Your task to perform on an android device: Go to Android settings Image 0: 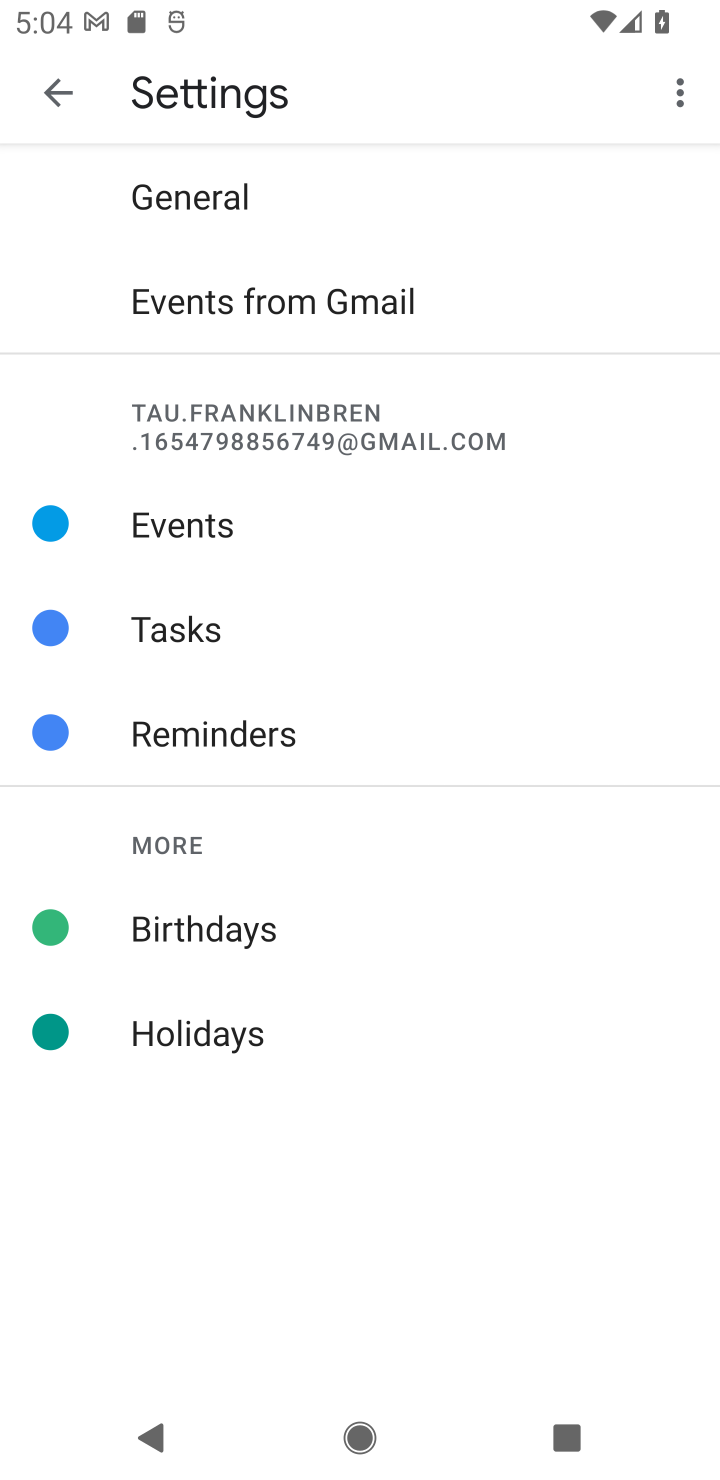
Step 0: press home button
Your task to perform on an android device: Go to Android settings Image 1: 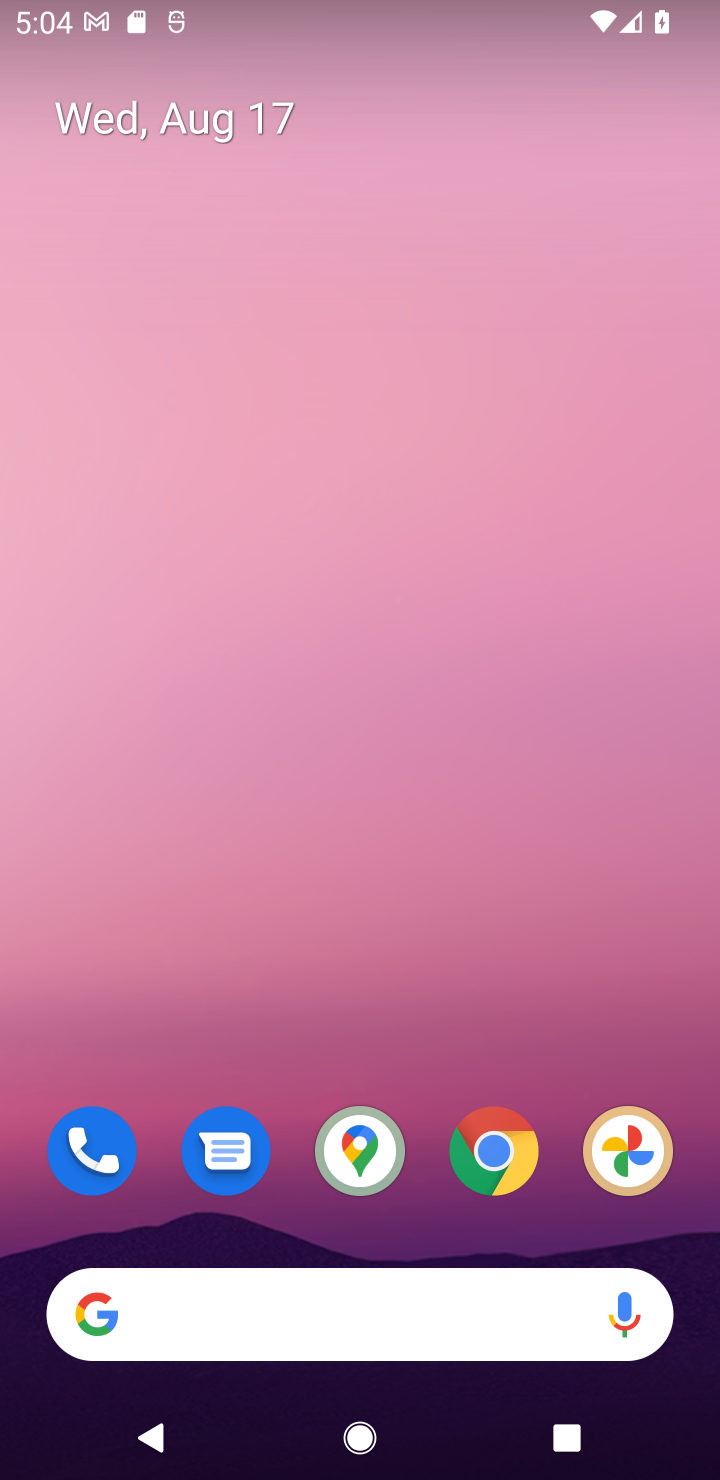
Step 1: drag from (579, 1230) to (501, 355)
Your task to perform on an android device: Go to Android settings Image 2: 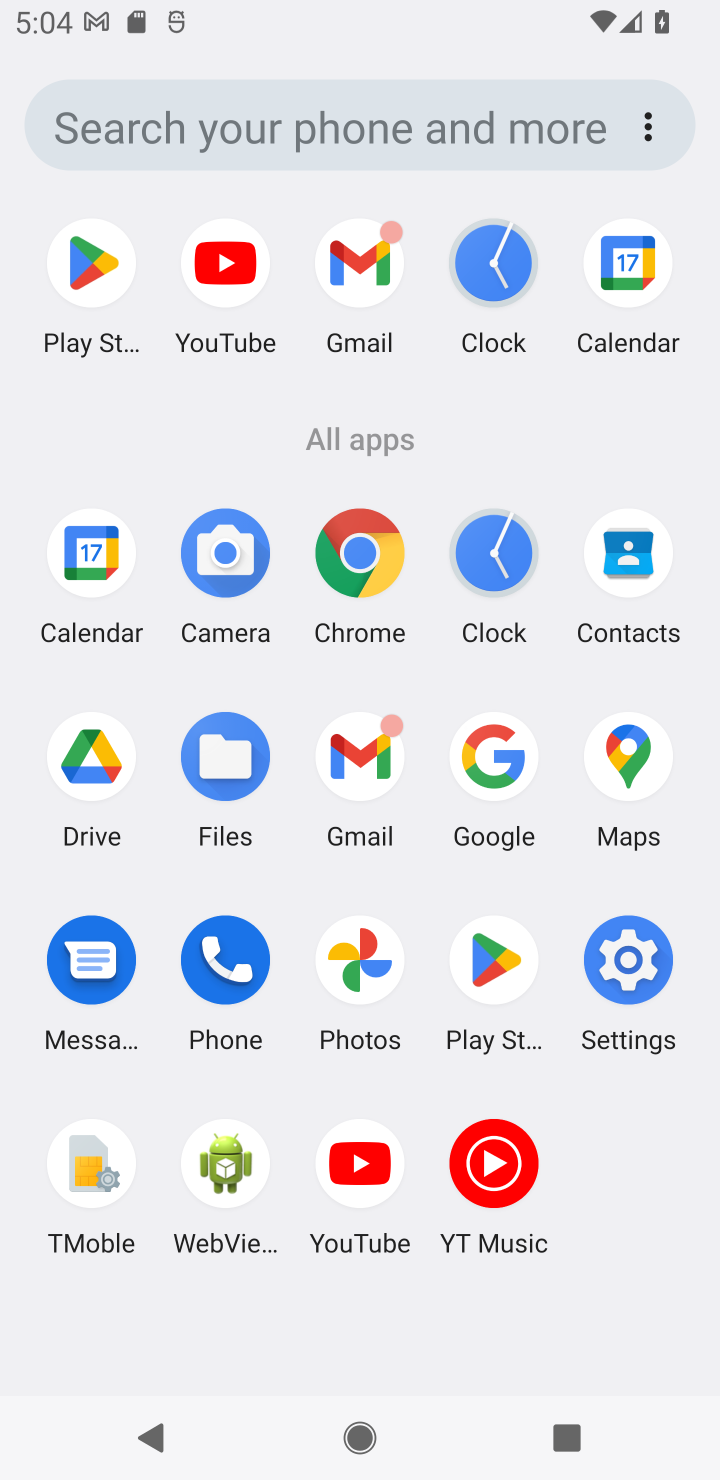
Step 2: click (633, 963)
Your task to perform on an android device: Go to Android settings Image 3: 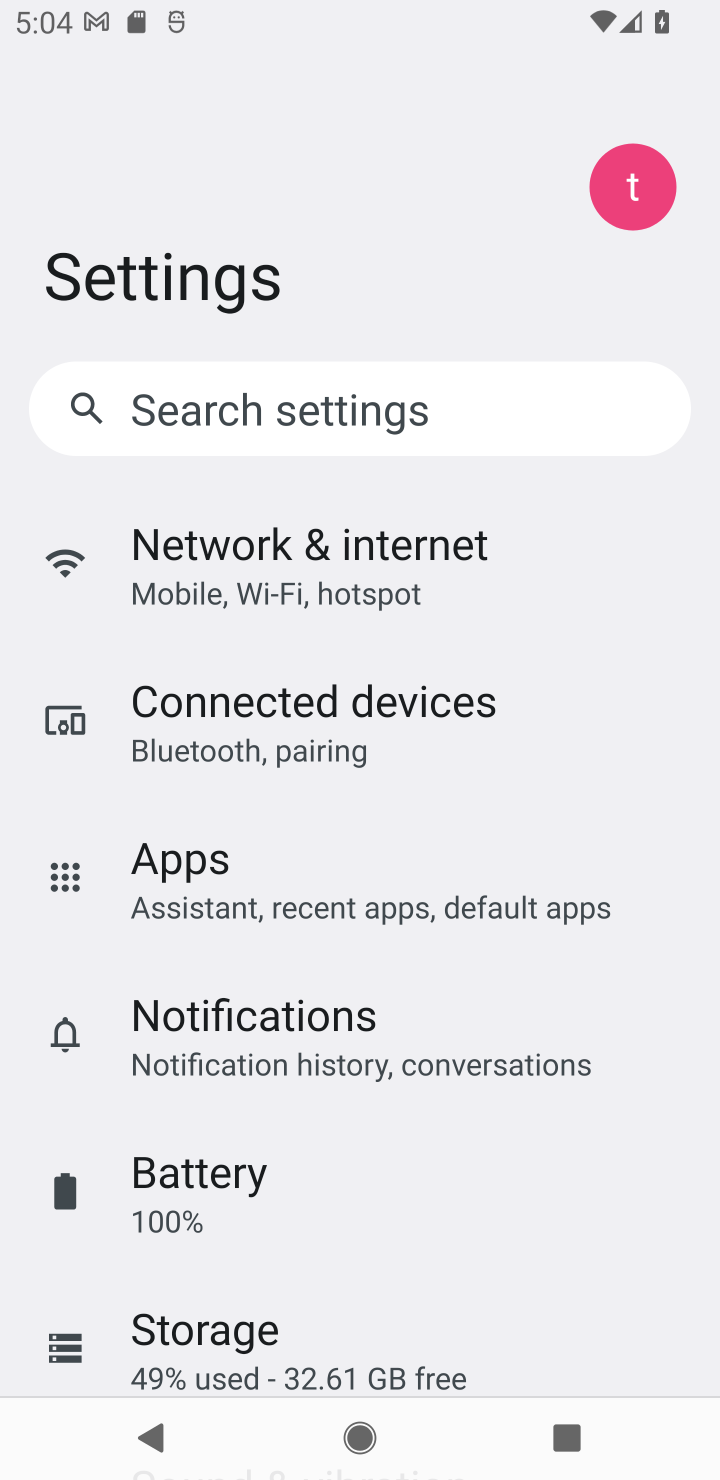
Step 3: drag from (511, 1295) to (529, 622)
Your task to perform on an android device: Go to Android settings Image 4: 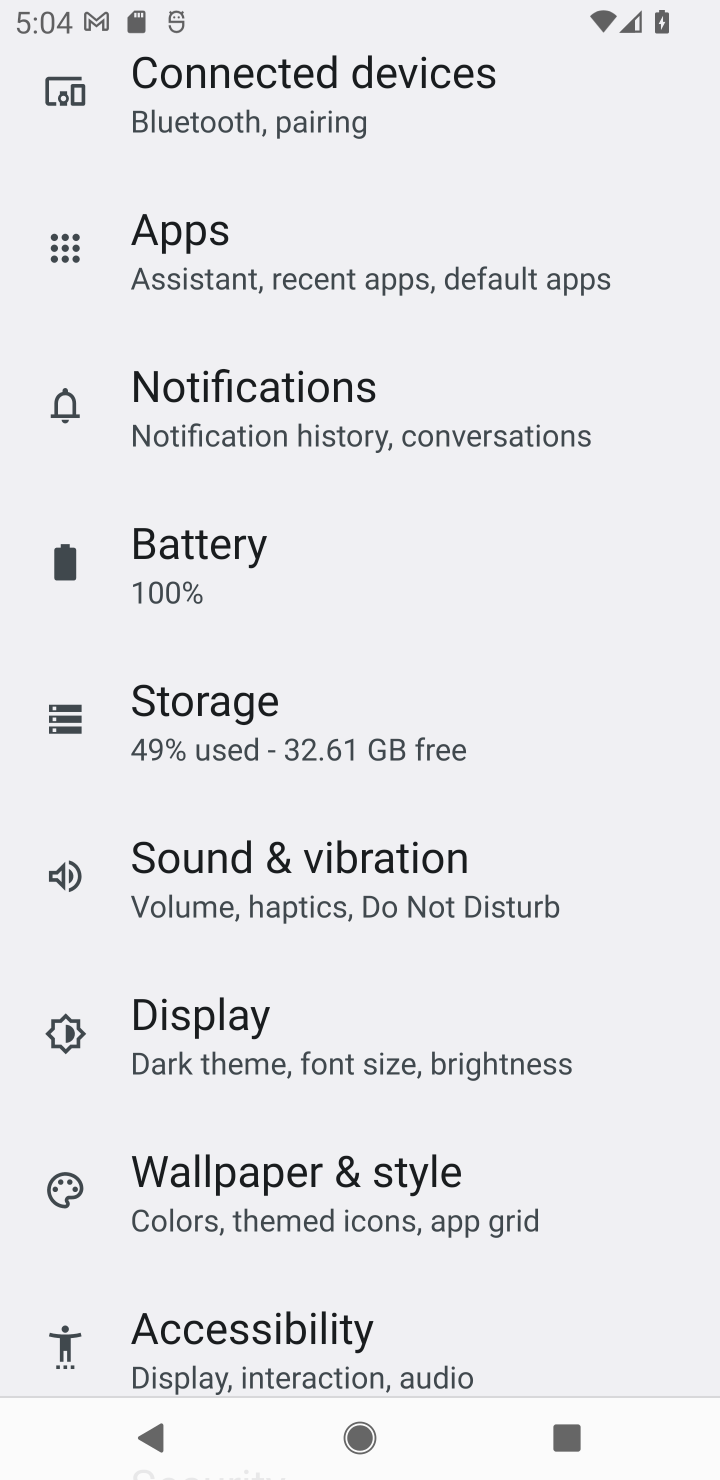
Step 4: drag from (562, 1245) to (527, 656)
Your task to perform on an android device: Go to Android settings Image 5: 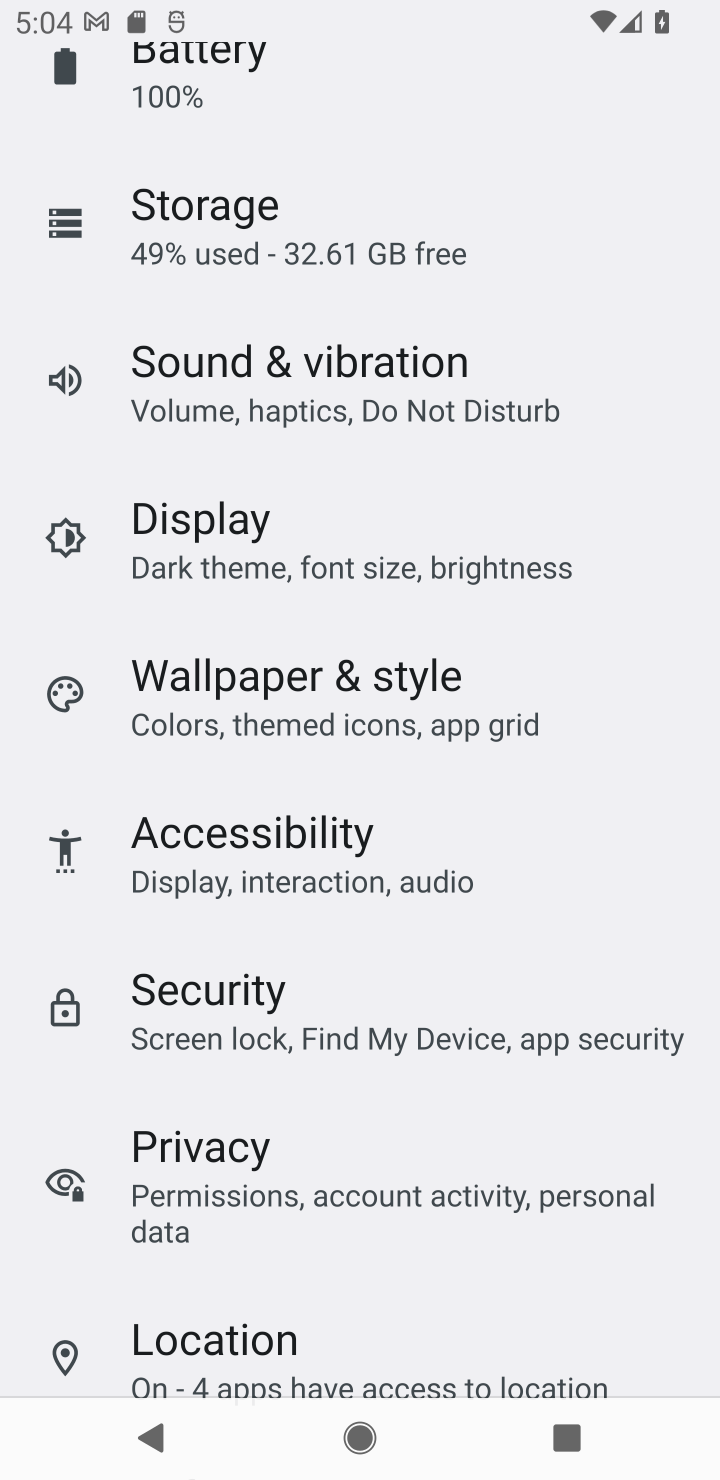
Step 5: drag from (545, 1280) to (526, 479)
Your task to perform on an android device: Go to Android settings Image 6: 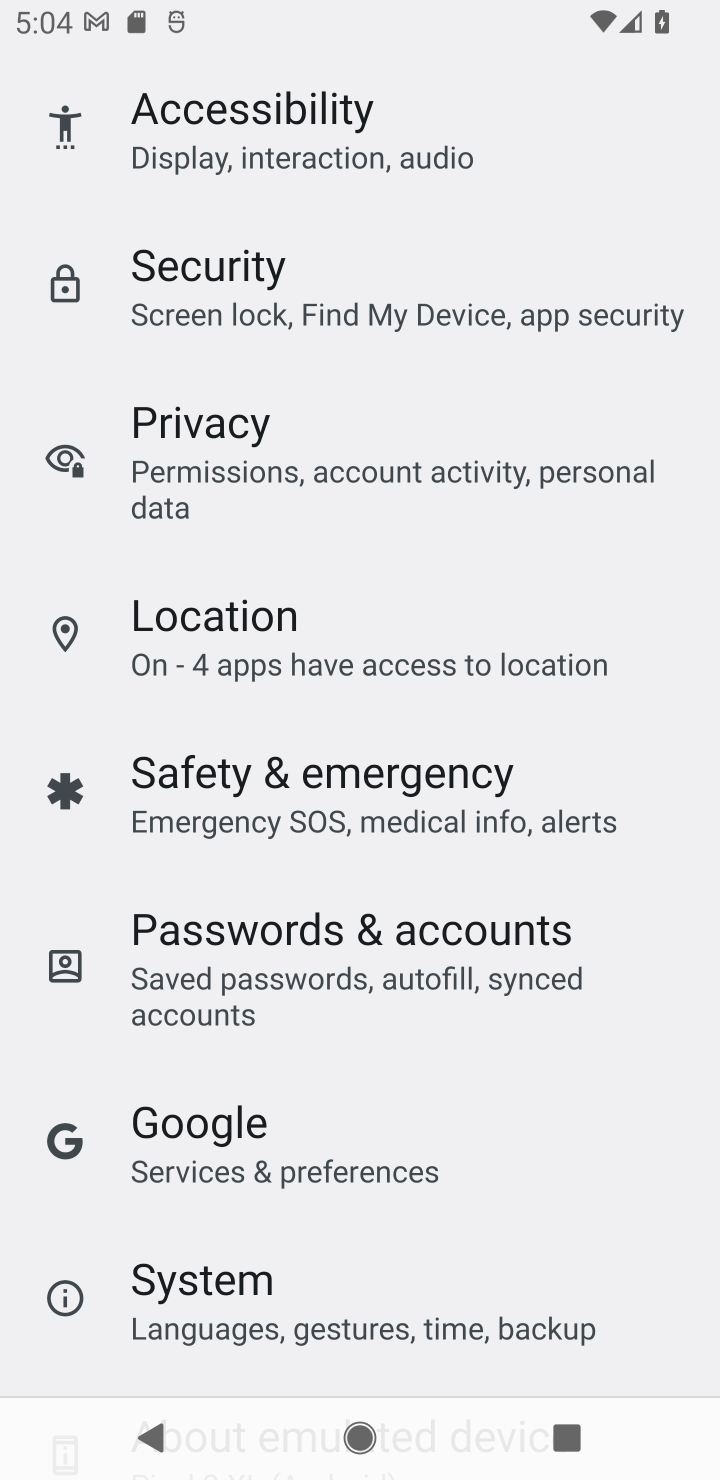
Step 6: drag from (516, 1142) to (480, 228)
Your task to perform on an android device: Go to Android settings Image 7: 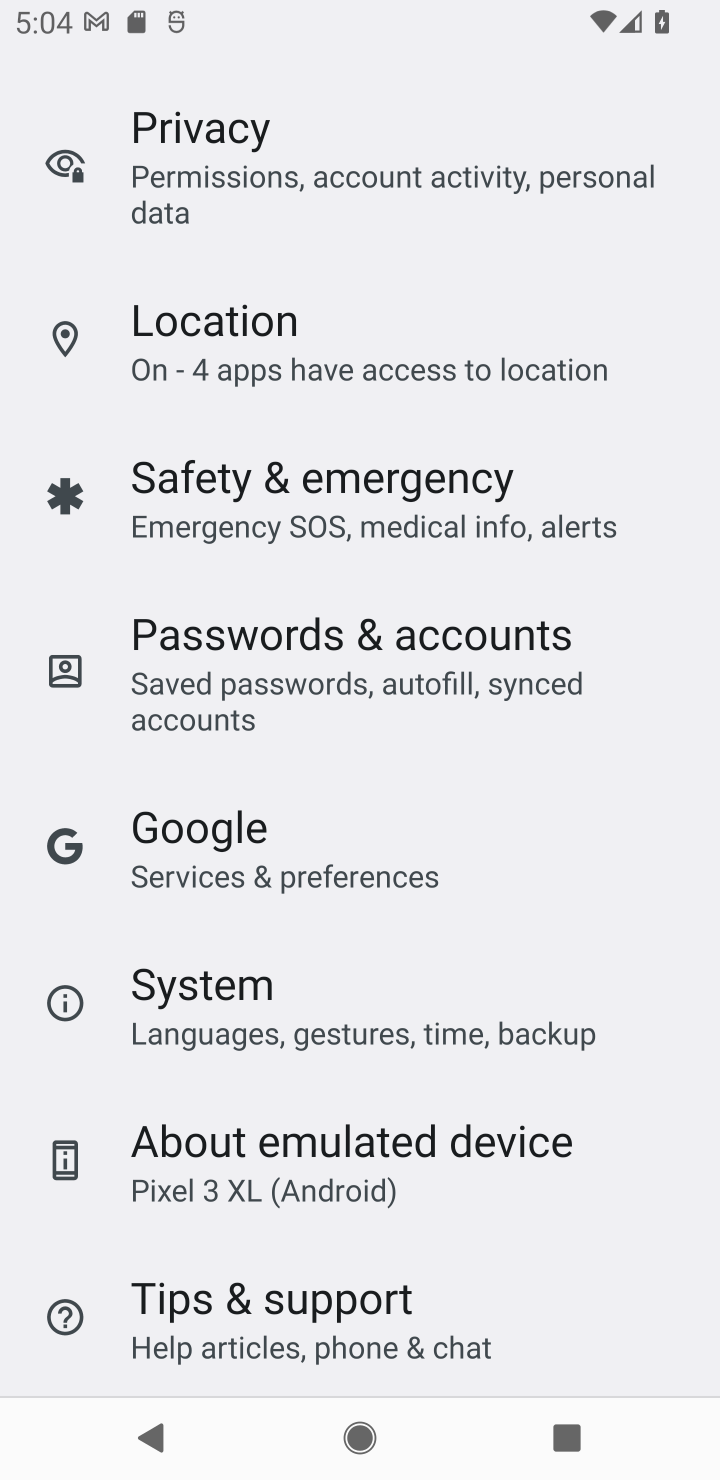
Step 7: click (232, 1166)
Your task to perform on an android device: Go to Android settings Image 8: 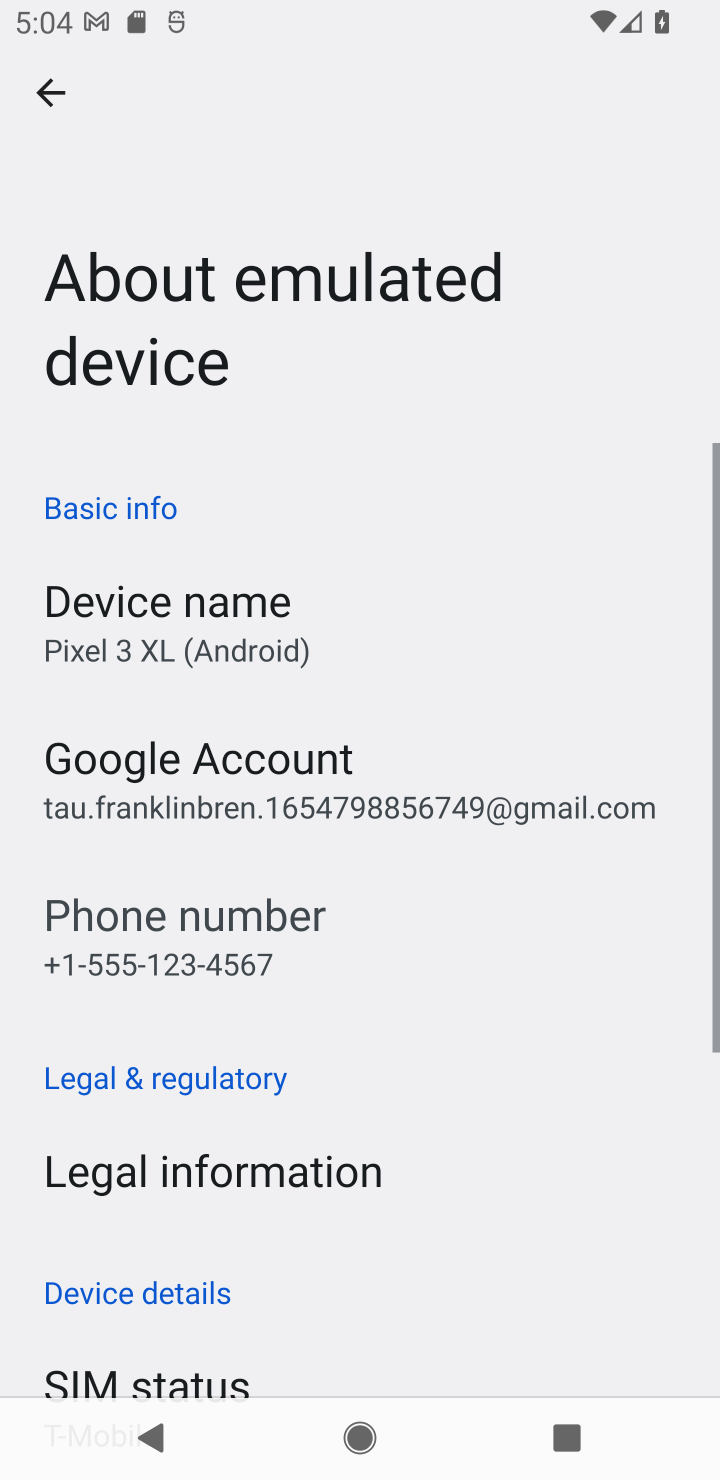
Step 8: task complete